Your task to perform on an android device: turn off notifications settings in the gmail app Image 0: 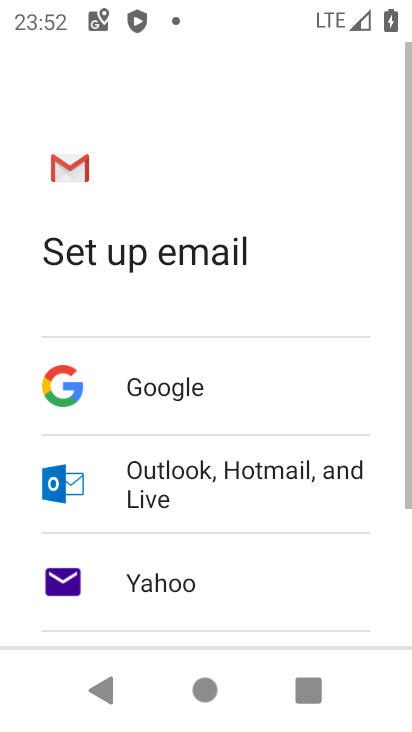
Step 0: press home button
Your task to perform on an android device: turn off notifications settings in the gmail app Image 1: 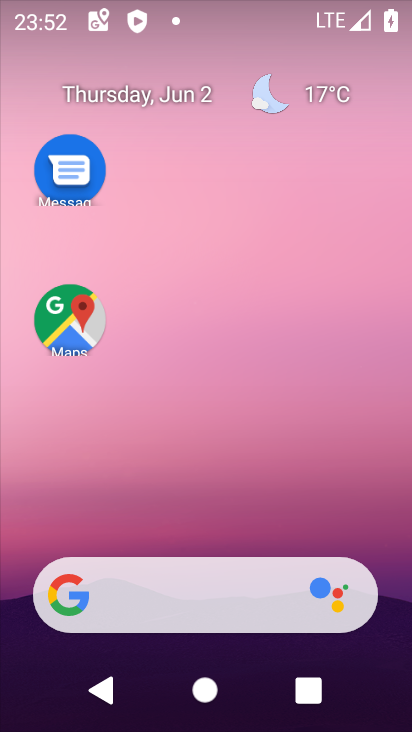
Step 1: drag from (406, 713) to (72, 105)
Your task to perform on an android device: turn off notifications settings in the gmail app Image 2: 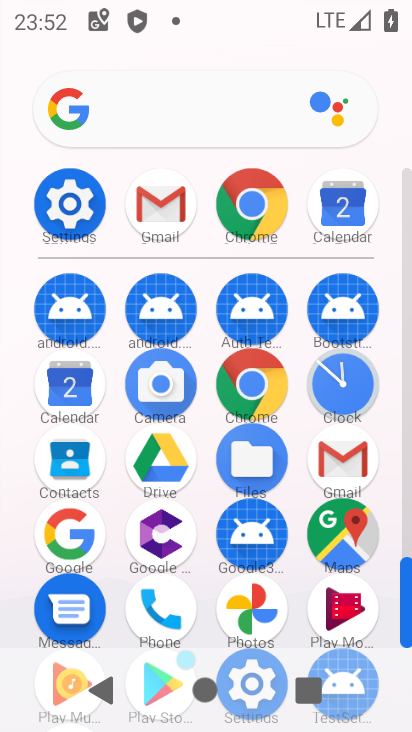
Step 2: click (155, 200)
Your task to perform on an android device: turn off notifications settings in the gmail app Image 3: 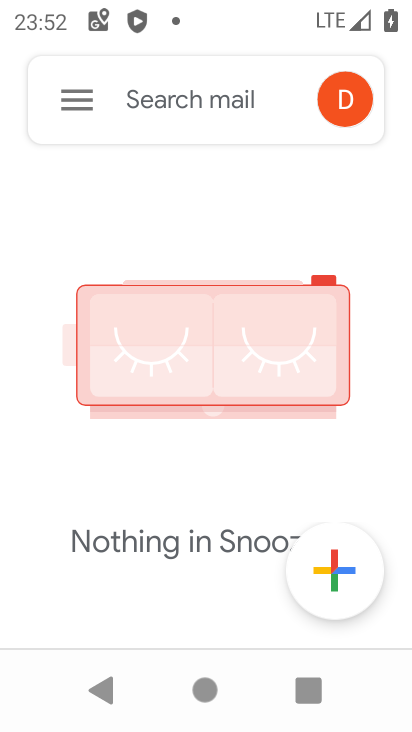
Step 3: click (63, 94)
Your task to perform on an android device: turn off notifications settings in the gmail app Image 4: 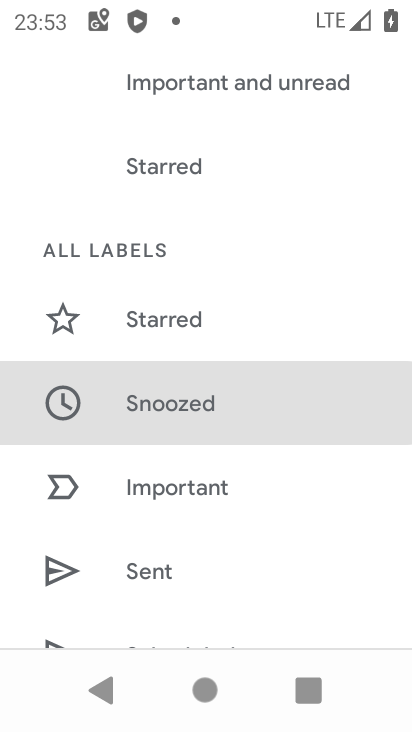
Step 4: press home button
Your task to perform on an android device: turn off notifications settings in the gmail app Image 5: 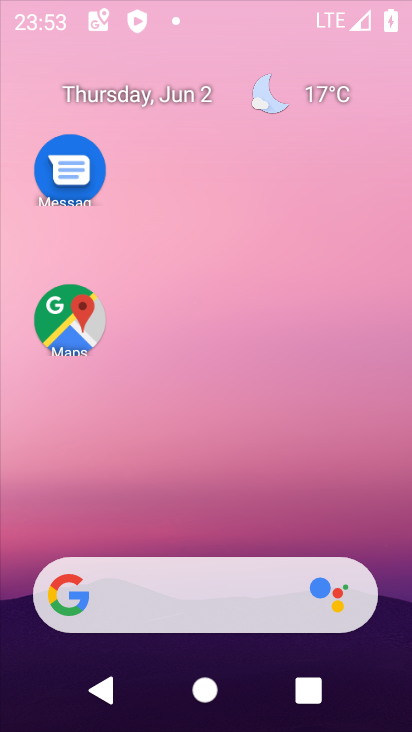
Step 5: drag from (308, 557) to (292, 302)
Your task to perform on an android device: turn off notifications settings in the gmail app Image 6: 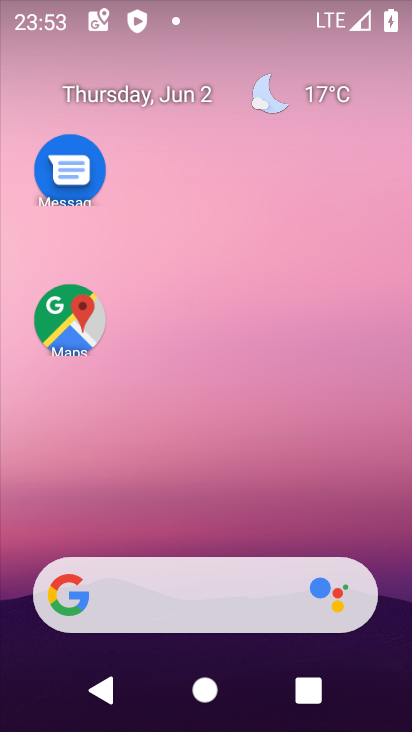
Step 6: drag from (354, 505) to (286, 2)
Your task to perform on an android device: turn off notifications settings in the gmail app Image 7: 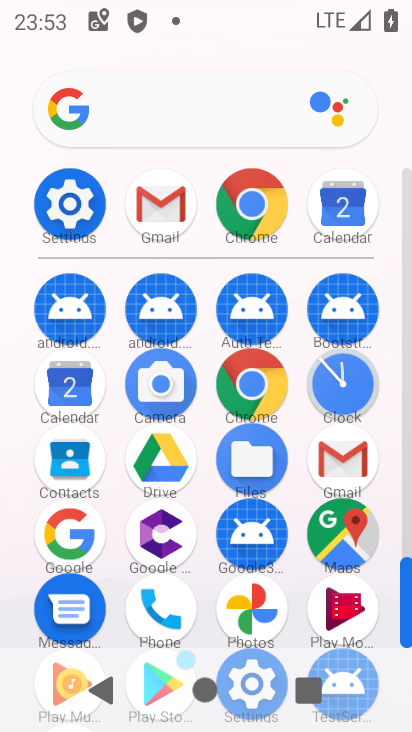
Step 7: click (161, 200)
Your task to perform on an android device: turn off notifications settings in the gmail app Image 8: 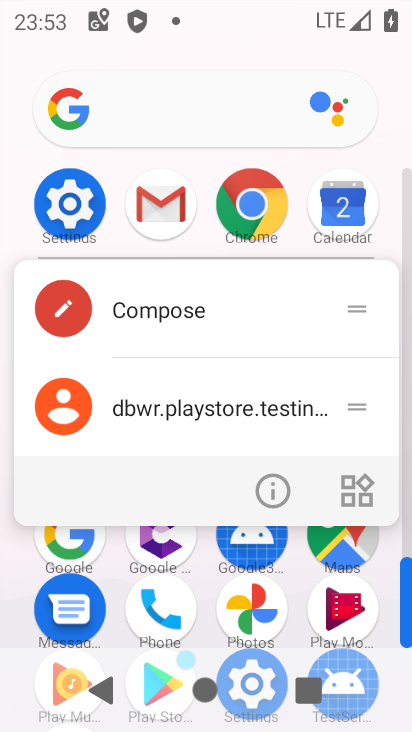
Step 8: click (266, 492)
Your task to perform on an android device: turn off notifications settings in the gmail app Image 9: 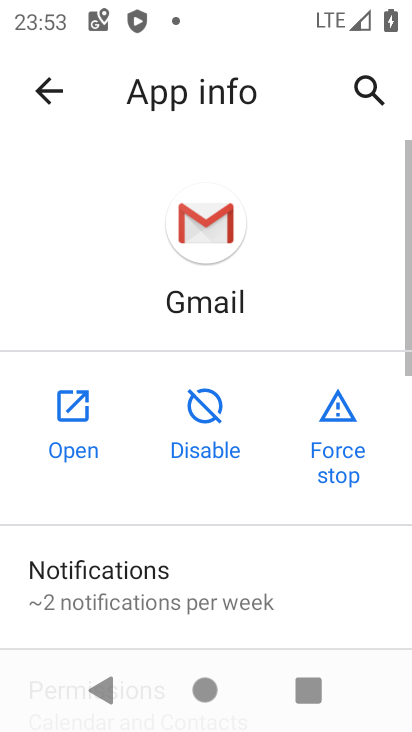
Step 9: click (139, 592)
Your task to perform on an android device: turn off notifications settings in the gmail app Image 10: 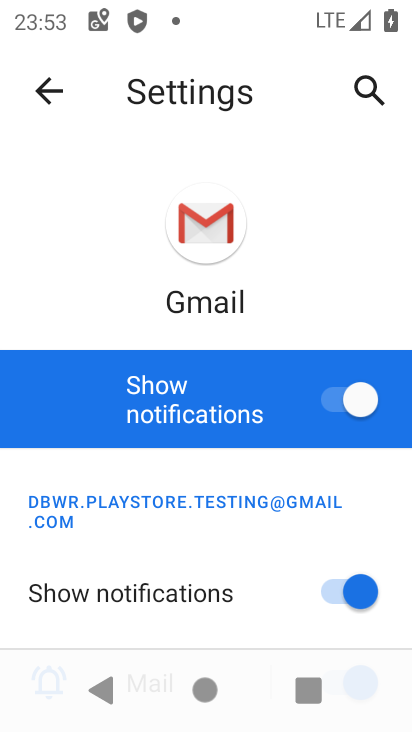
Step 10: click (174, 405)
Your task to perform on an android device: turn off notifications settings in the gmail app Image 11: 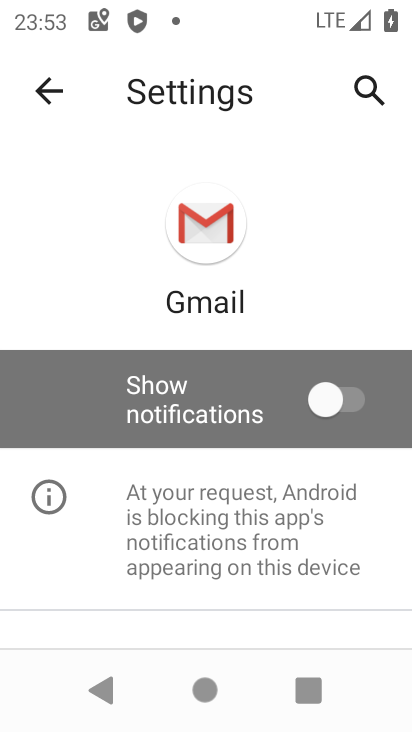
Step 11: task complete